Your task to perform on an android device: allow cookies in the chrome app Image 0: 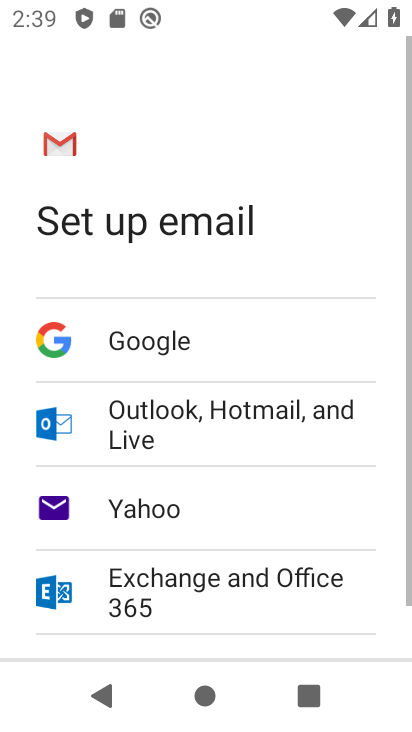
Step 0: press back button
Your task to perform on an android device: allow cookies in the chrome app Image 1: 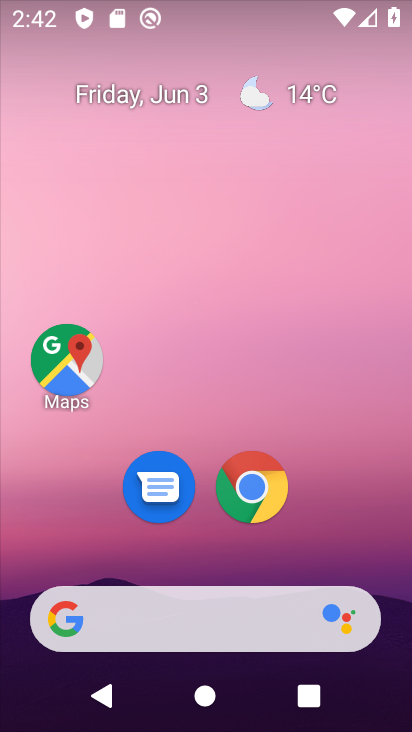
Step 1: click (259, 488)
Your task to perform on an android device: allow cookies in the chrome app Image 2: 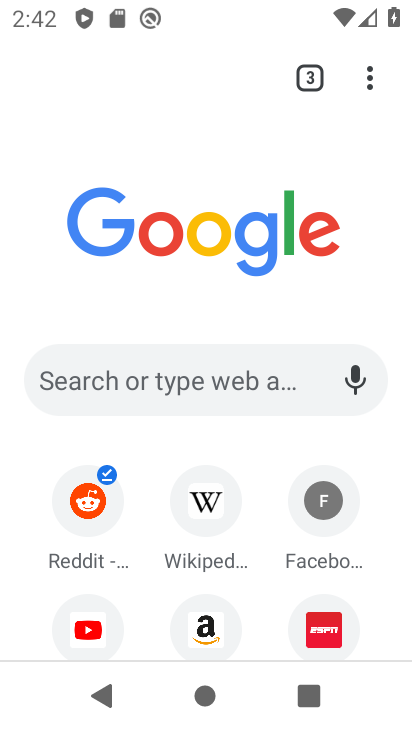
Step 2: drag from (364, 77) to (151, 541)
Your task to perform on an android device: allow cookies in the chrome app Image 3: 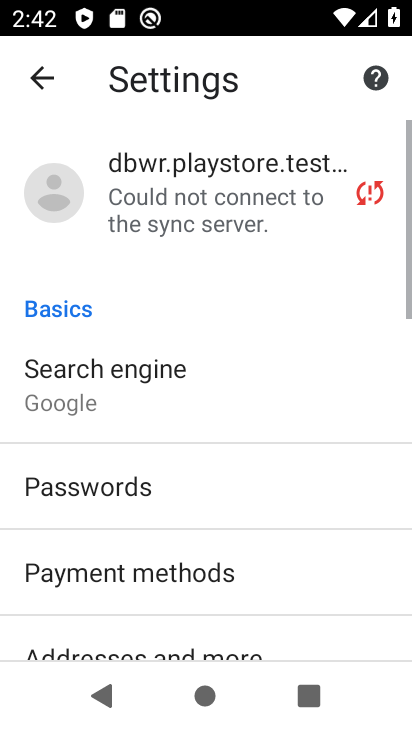
Step 3: drag from (180, 581) to (186, 46)
Your task to perform on an android device: allow cookies in the chrome app Image 4: 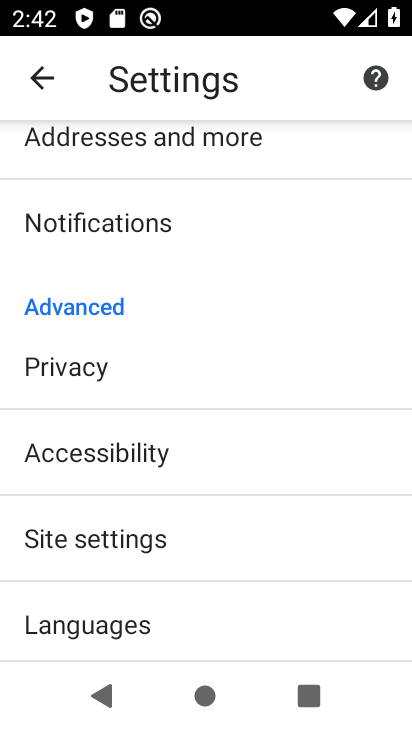
Step 4: click (164, 543)
Your task to perform on an android device: allow cookies in the chrome app Image 5: 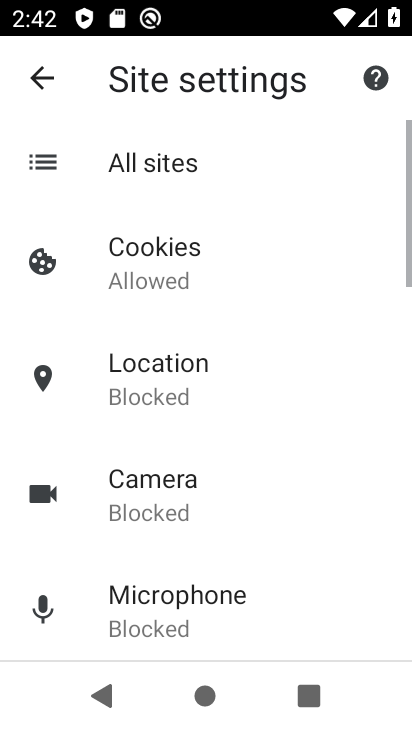
Step 5: click (179, 261)
Your task to perform on an android device: allow cookies in the chrome app Image 6: 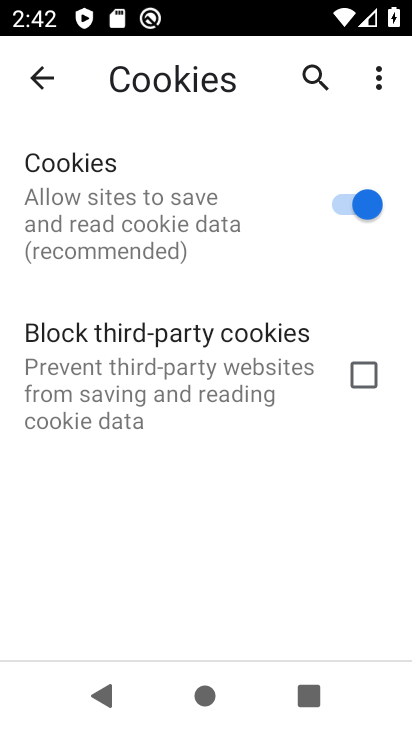
Step 6: task complete